Your task to perform on an android device: Open maps Image 0: 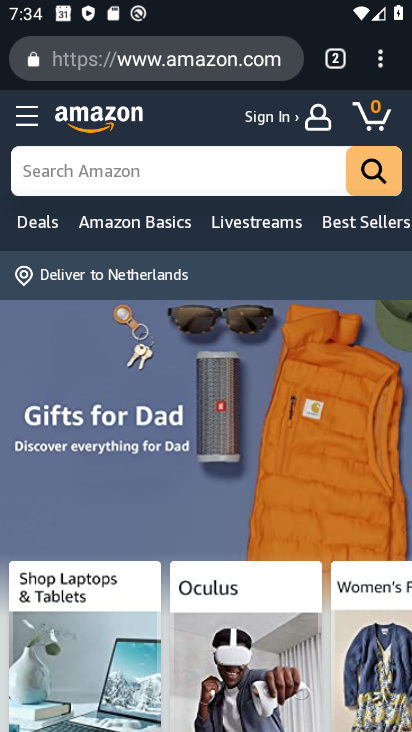
Step 0: press home button
Your task to perform on an android device: Open maps Image 1: 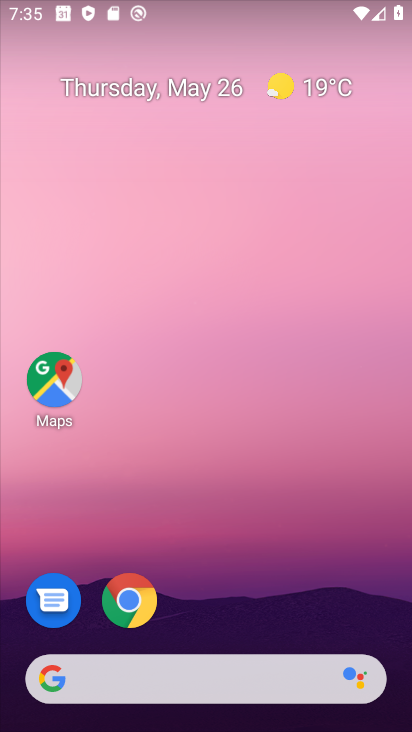
Step 1: drag from (305, 694) to (249, 166)
Your task to perform on an android device: Open maps Image 2: 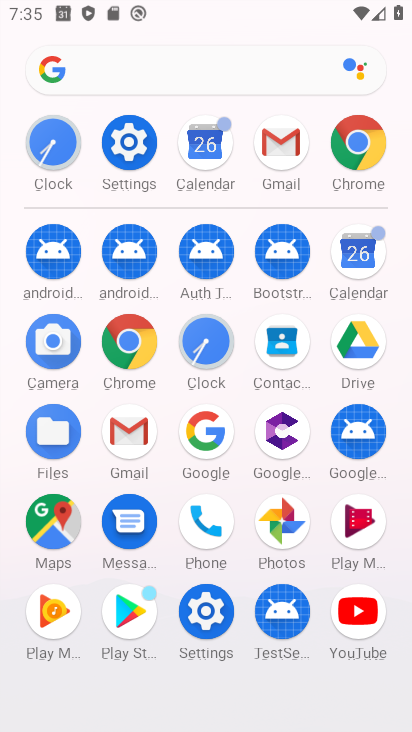
Step 2: click (42, 523)
Your task to perform on an android device: Open maps Image 3: 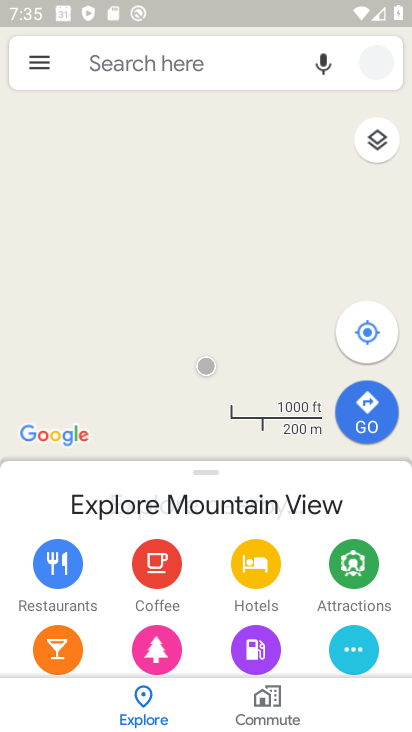
Step 3: click (373, 333)
Your task to perform on an android device: Open maps Image 4: 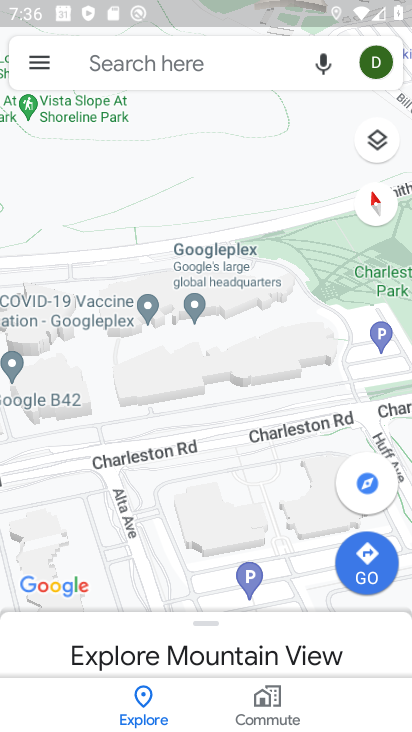
Step 4: task complete